Your task to perform on an android device: see creations saved in the google photos Image 0: 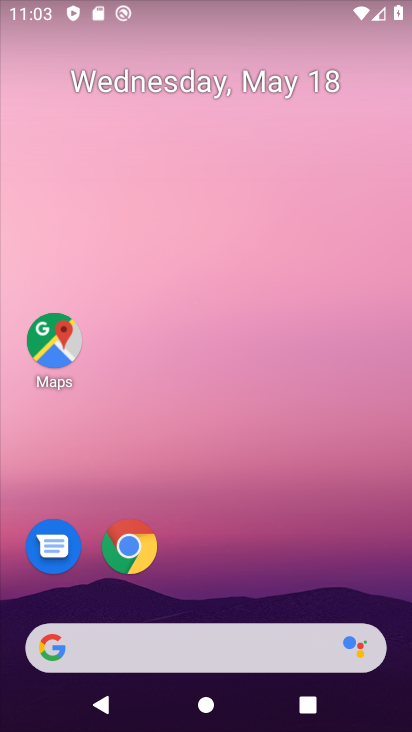
Step 0: press home button
Your task to perform on an android device: see creations saved in the google photos Image 1: 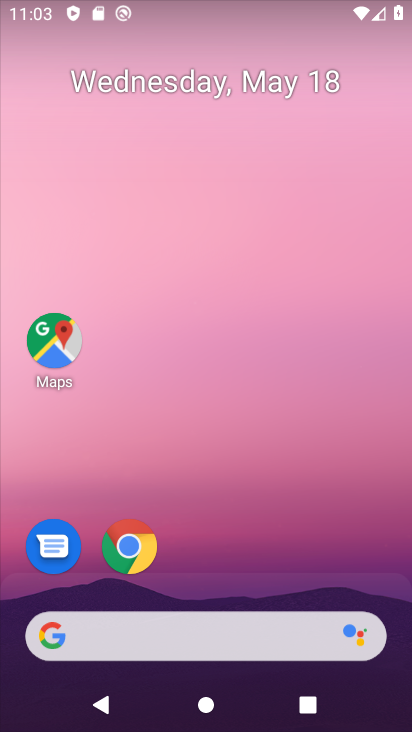
Step 1: drag from (335, 565) to (203, 63)
Your task to perform on an android device: see creations saved in the google photos Image 2: 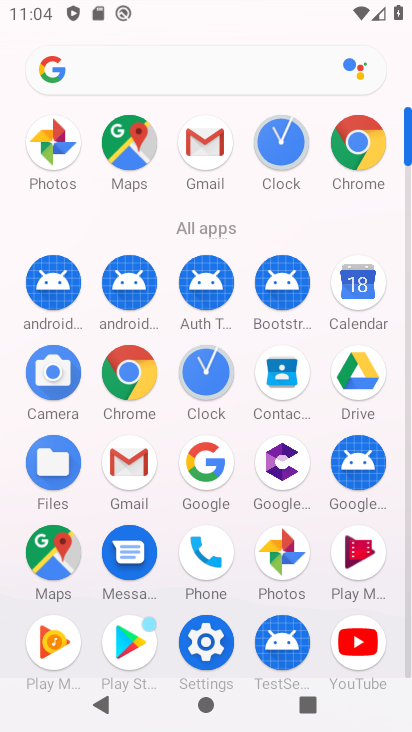
Step 2: click (306, 555)
Your task to perform on an android device: see creations saved in the google photos Image 3: 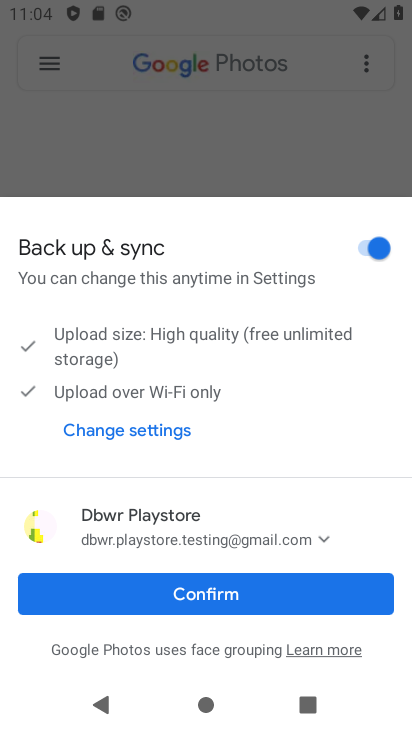
Step 3: click (298, 612)
Your task to perform on an android device: see creations saved in the google photos Image 4: 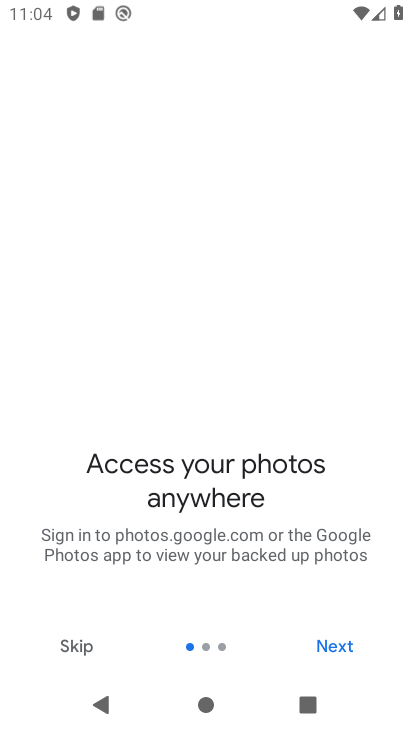
Step 4: click (321, 662)
Your task to perform on an android device: see creations saved in the google photos Image 5: 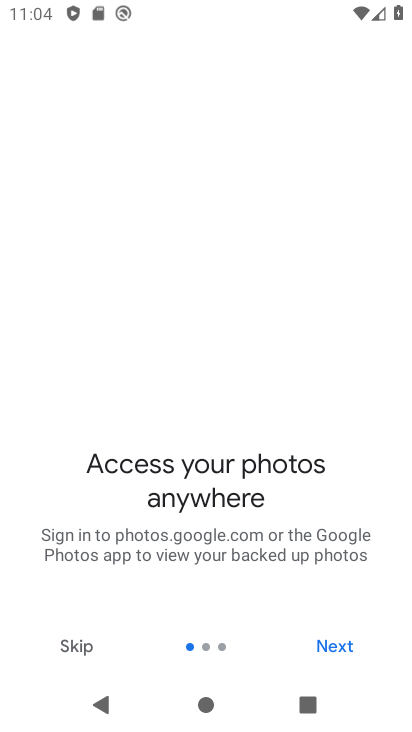
Step 5: click (318, 646)
Your task to perform on an android device: see creations saved in the google photos Image 6: 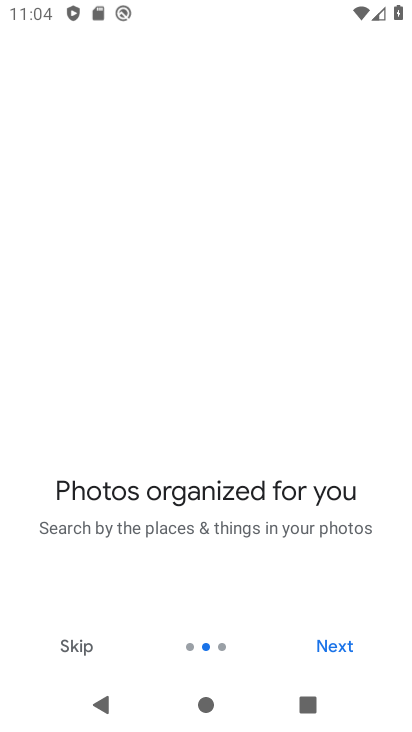
Step 6: click (318, 646)
Your task to perform on an android device: see creations saved in the google photos Image 7: 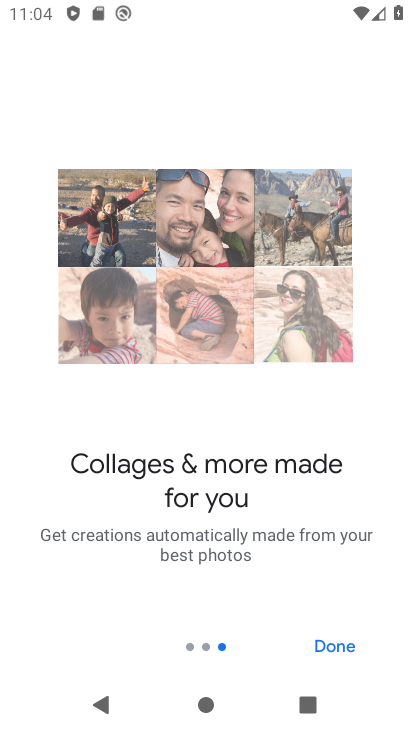
Step 7: click (285, 620)
Your task to perform on an android device: see creations saved in the google photos Image 8: 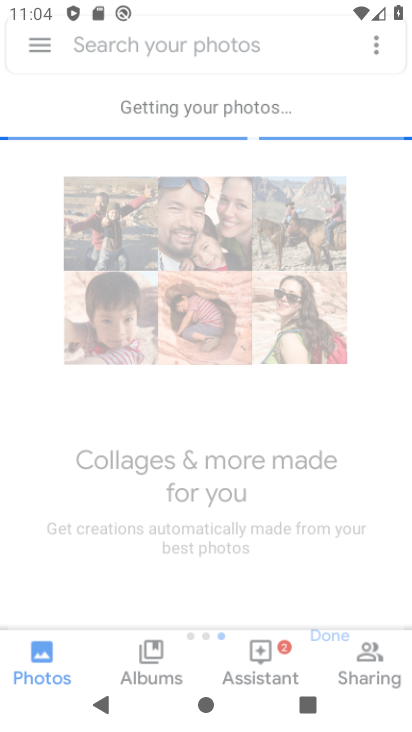
Step 8: click (240, 604)
Your task to perform on an android device: see creations saved in the google photos Image 9: 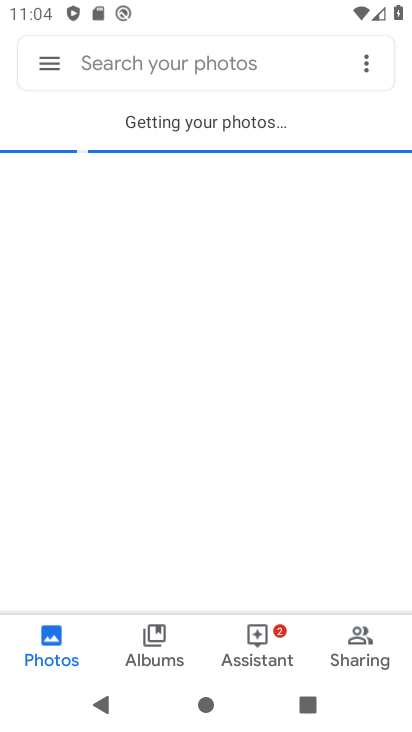
Step 9: click (222, 608)
Your task to perform on an android device: see creations saved in the google photos Image 10: 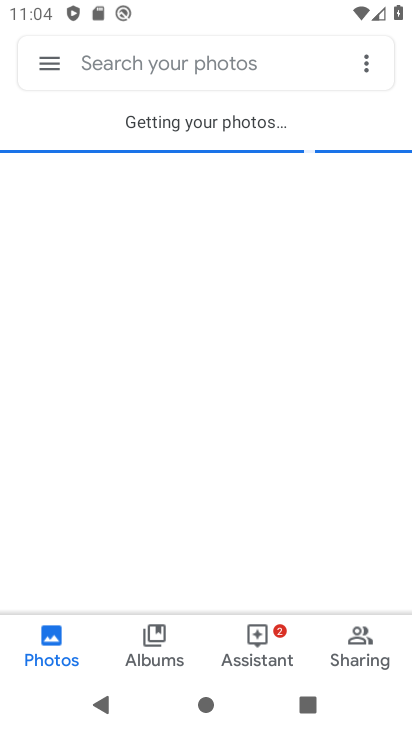
Step 10: click (106, 66)
Your task to perform on an android device: see creations saved in the google photos Image 11: 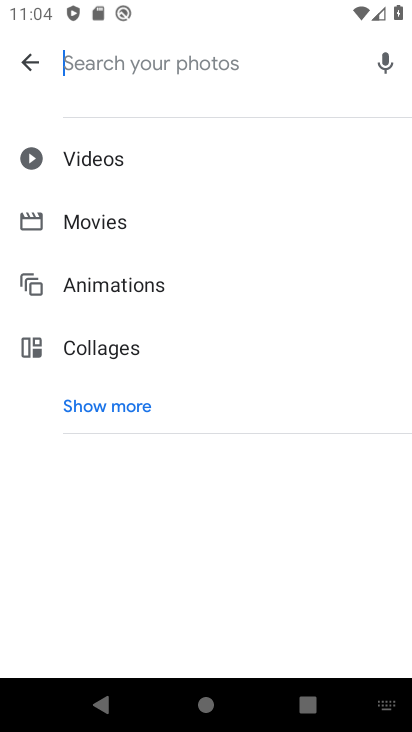
Step 11: click (131, 397)
Your task to perform on an android device: see creations saved in the google photos Image 12: 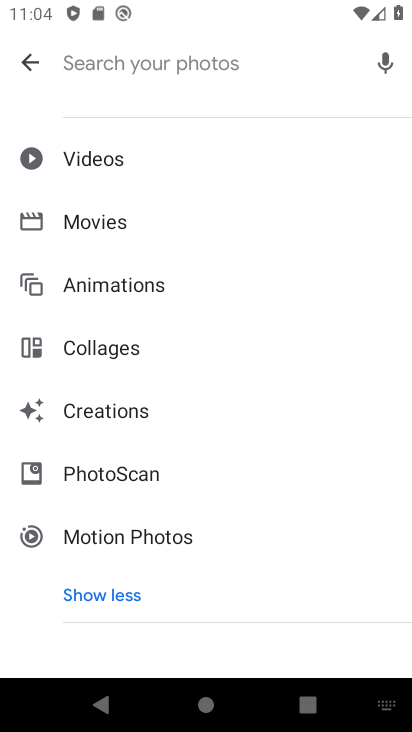
Step 12: click (131, 397)
Your task to perform on an android device: see creations saved in the google photos Image 13: 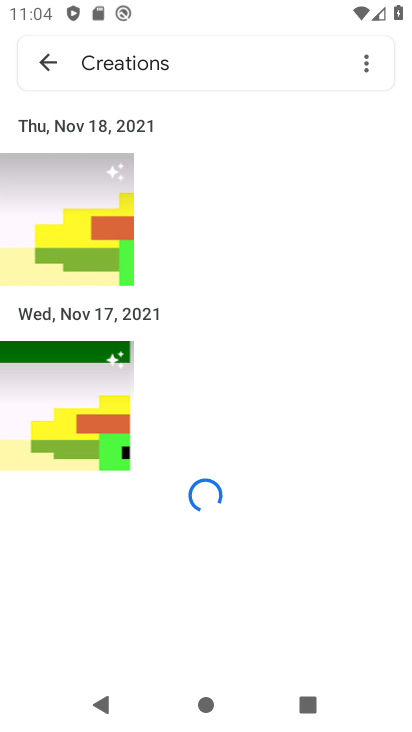
Step 13: task complete